Your task to perform on an android device: Open network settings Image 0: 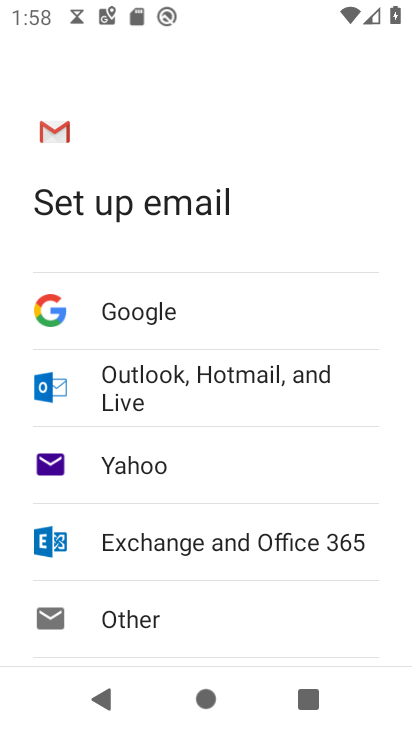
Step 0: press home button
Your task to perform on an android device: Open network settings Image 1: 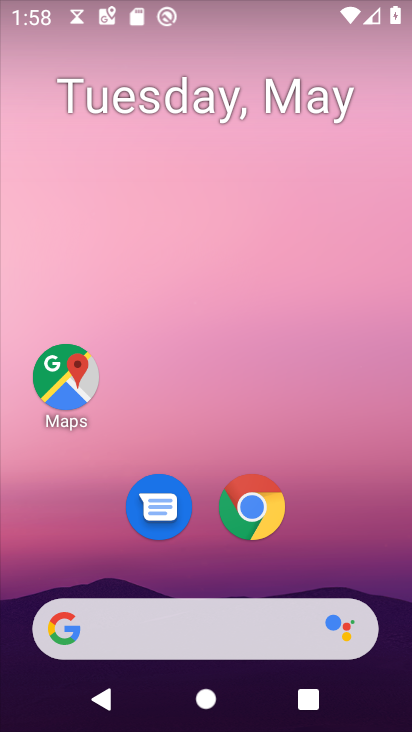
Step 1: drag from (220, 569) to (208, 217)
Your task to perform on an android device: Open network settings Image 2: 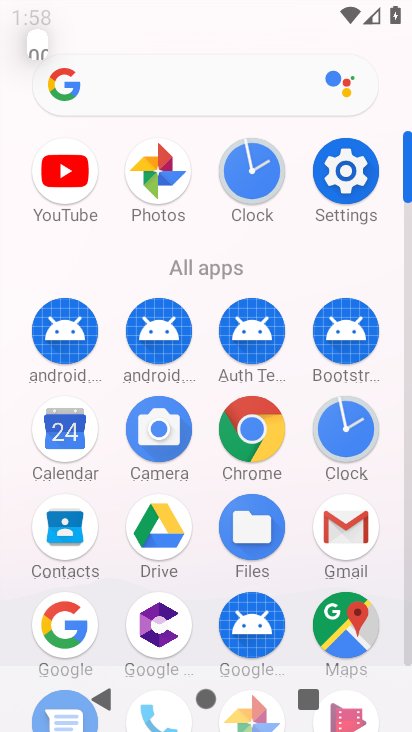
Step 2: click (356, 197)
Your task to perform on an android device: Open network settings Image 3: 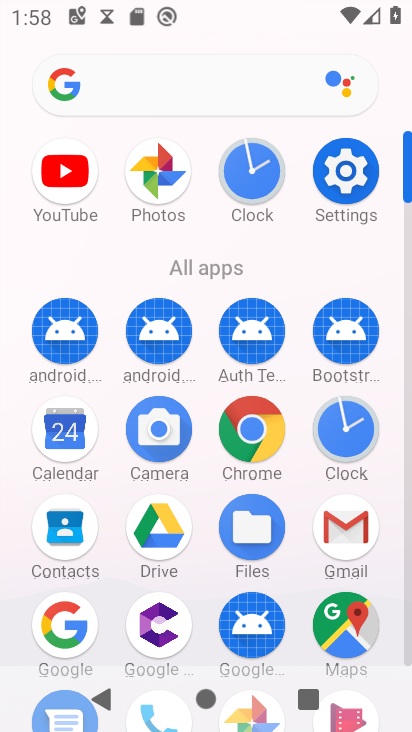
Step 3: click (335, 177)
Your task to perform on an android device: Open network settings Image 4: 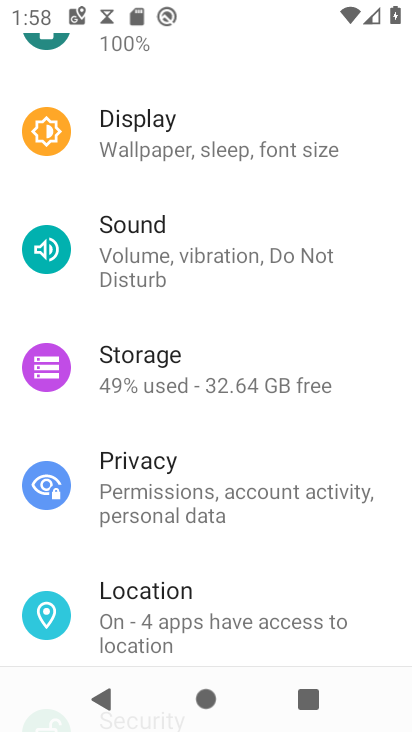
Step 4: drag from (245, 115) to (278, 410)
Your task to perform on an android device: Open network settings Image 5: 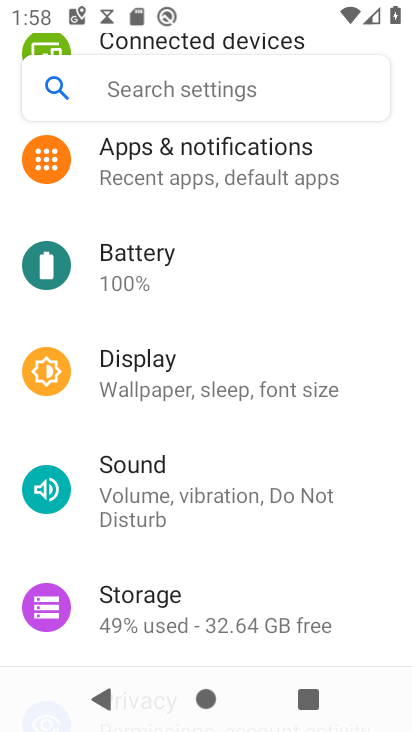
Step 5: drag from (205, 170) to (256, 421)
Your task to perform on an android device: Open network settings Image 6: 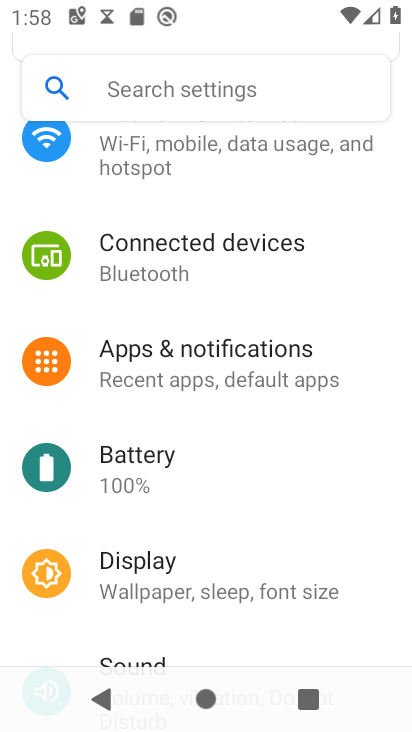
Step 6: drag from (216, 189) to (240, 419)
Your task to perform on an android device: Open network settings Image 7: 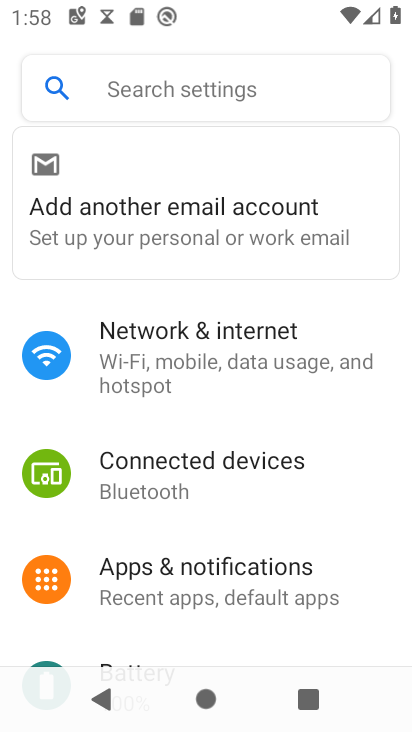
Step 7: click (214, 343)
Your task to perform on an android device: Open network settings Image 8: 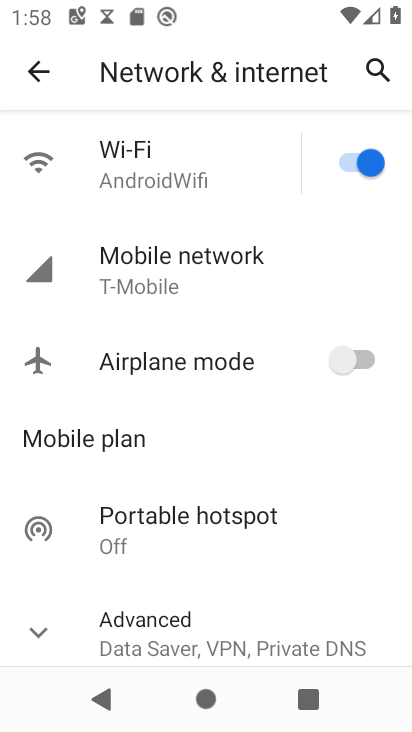
Step 8: click (170, 269)
Your task to perform on an android device: Open network settings Image 9: 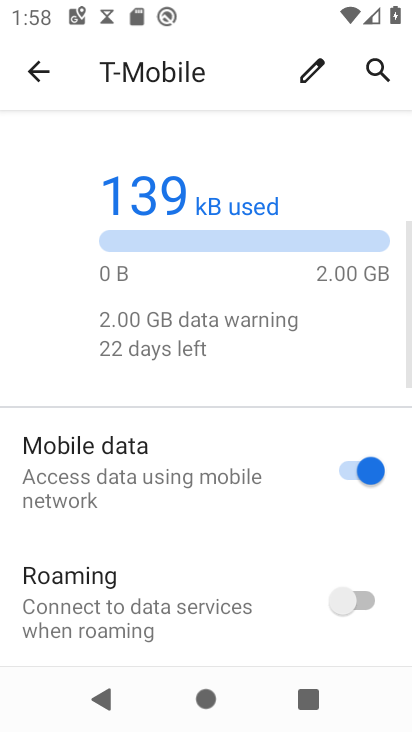
Step 9: task complete